Your task to perform on an android device: check android version Image 0: 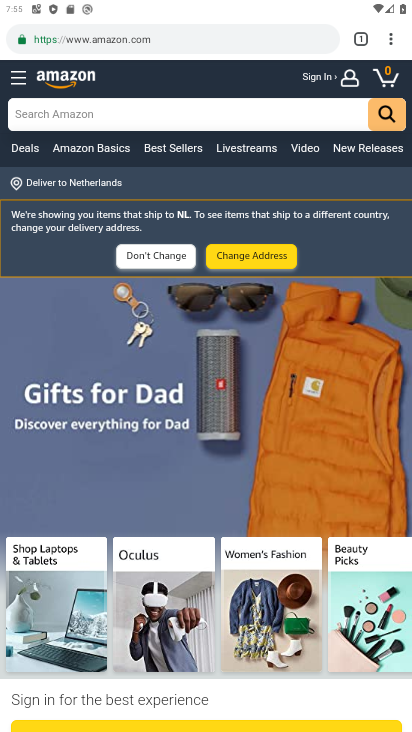
Step 0: press home button
Your task to perform on an android device: check android version Image 1: 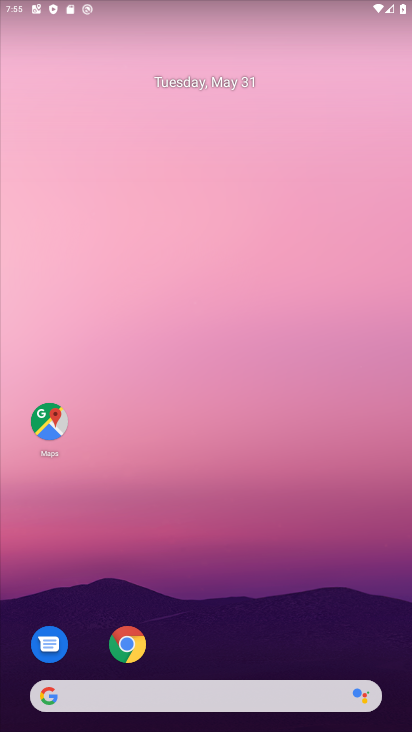
Step 1: drag from (116, 666) to (242, 8)
Your task to perform on an android device: check android version Image 2: 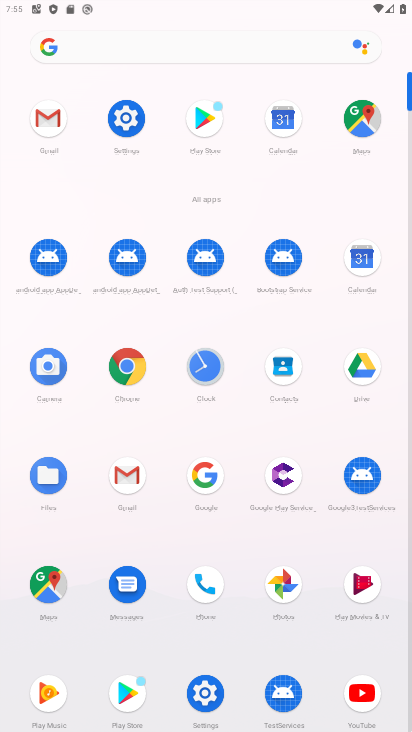
Step 2: click (132, 106)
Your task to perform on an android device: check android version Image 3: 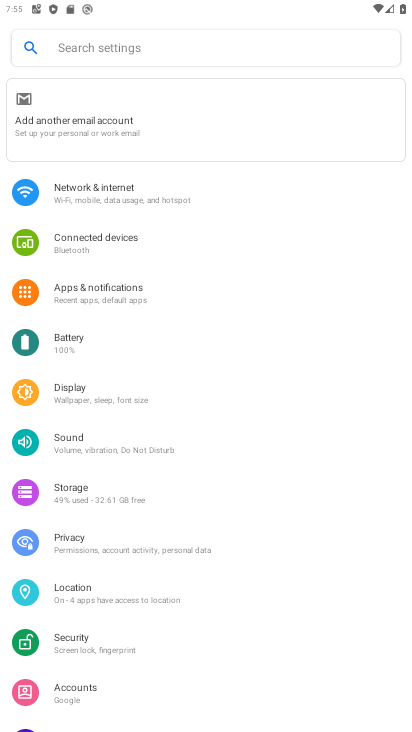
Step 3: drag from (241, 695) to (313, 0)
Your task to perform on an android device: check android version Image 4: 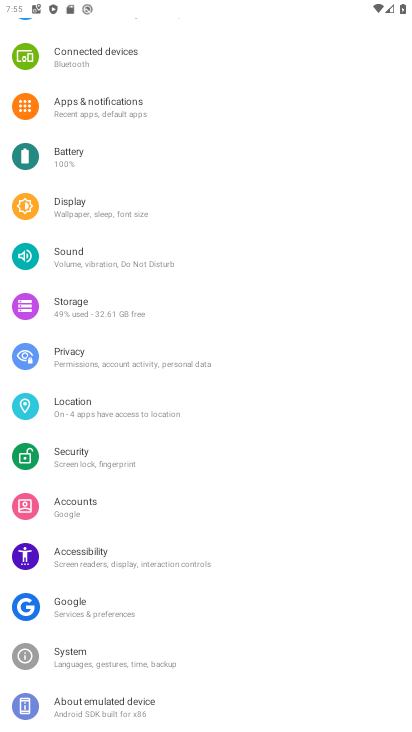
Step 4: drag from (185, 626) to (275, 40)
Your task to perform on an android device: check android version Image 5: 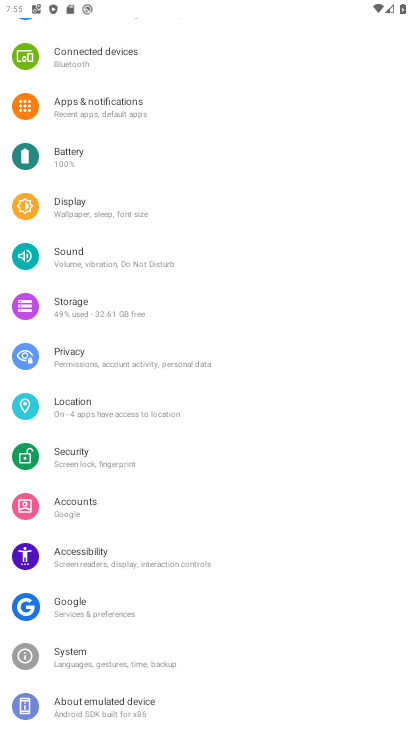
Step 5: click (141, 709)
Your task to perform on an android device: check android version Image 6: 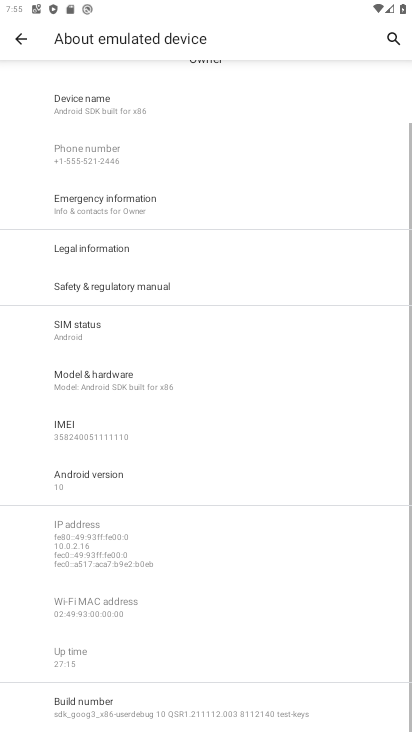
Step 6: task complete